Your task to perform on an android device: Open the stopwatch Image 0: 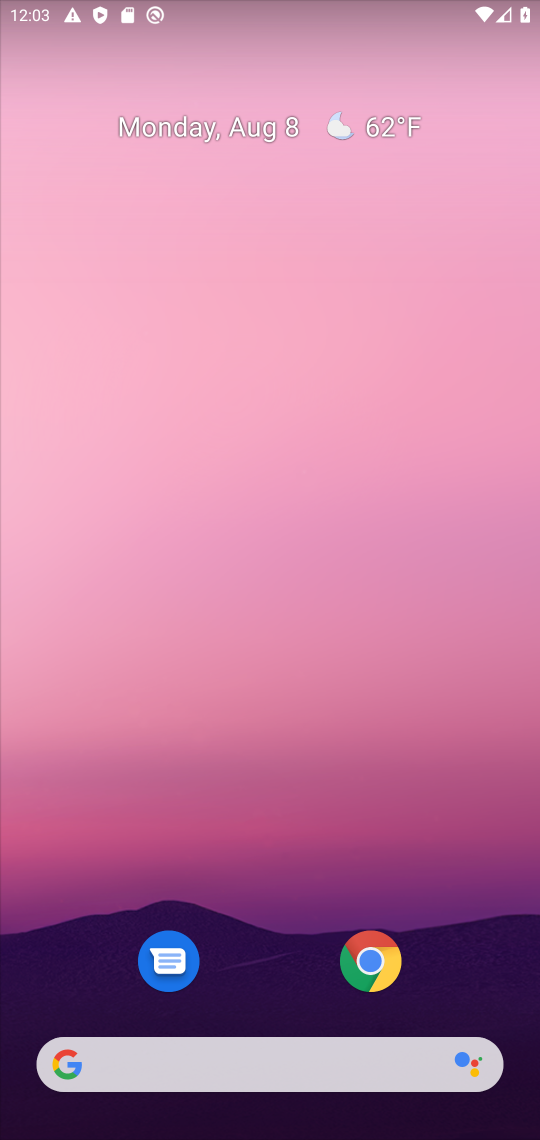
Step 0: drag from (222, 1062) to (273, 12)
Your task to perform on an android device: Open the stopwatch Image 1: 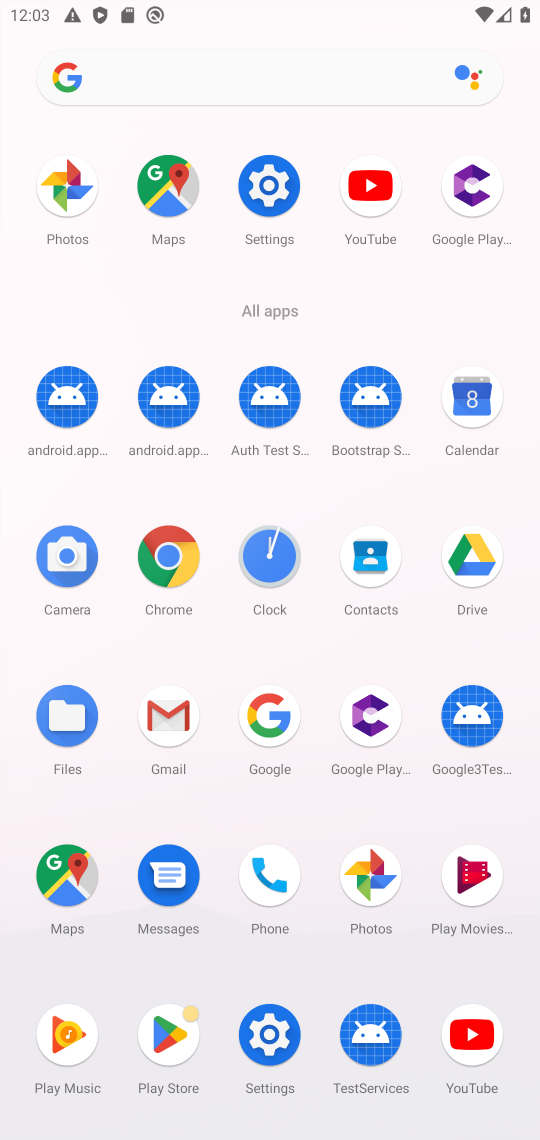
Step 1: click (270, 576)
Your task to perform on an android device: Open the stopwatch Image 2: 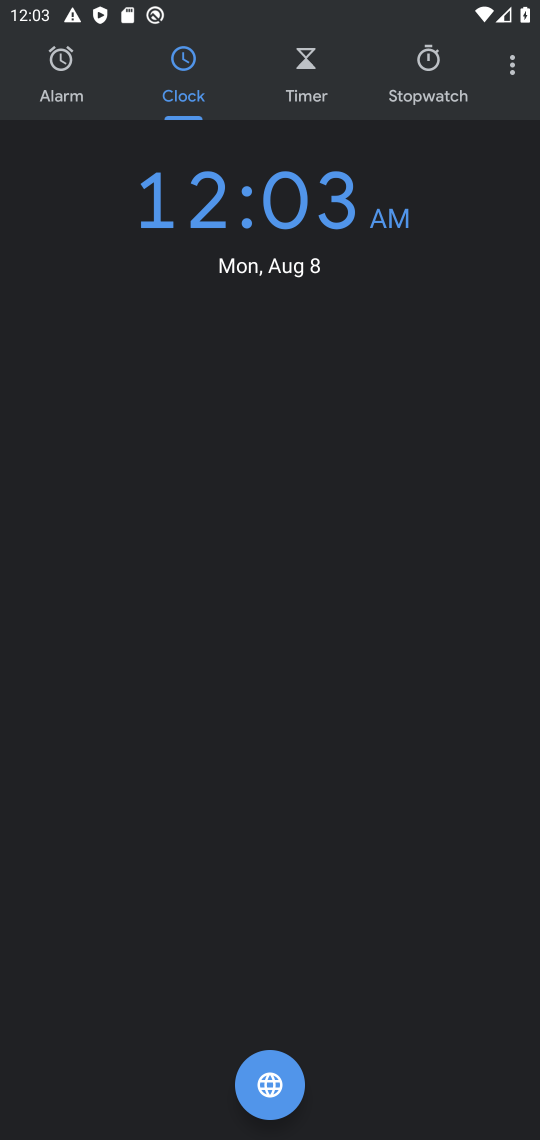
Step 2: click (410, 89)
Your task to perform on an android device: Open the stopwatch Image 3: 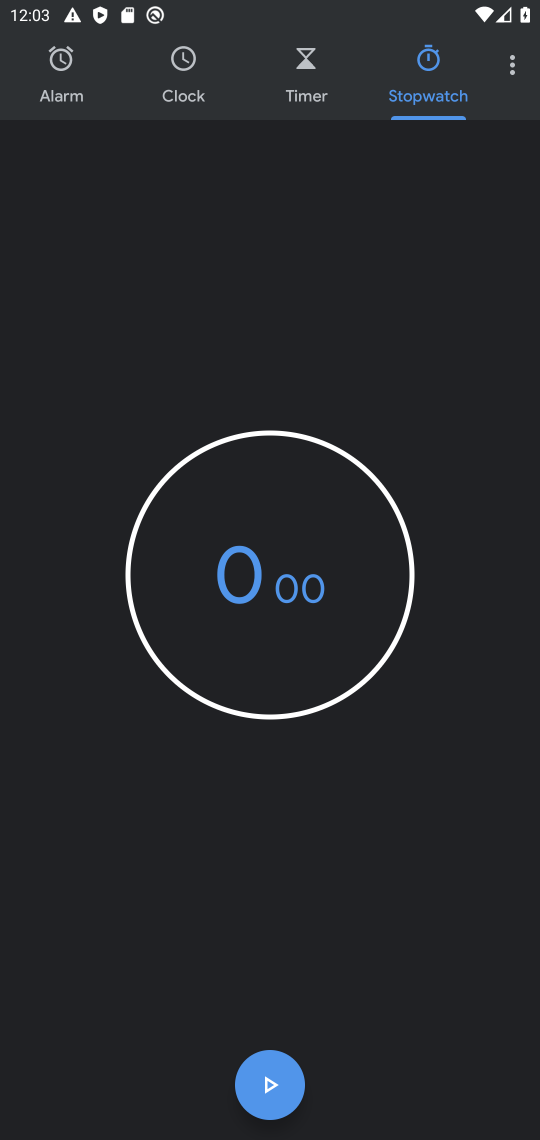
Step 3: click (269, 1097)
Your task to perform on an android device: Open the stopwatch Image 4: 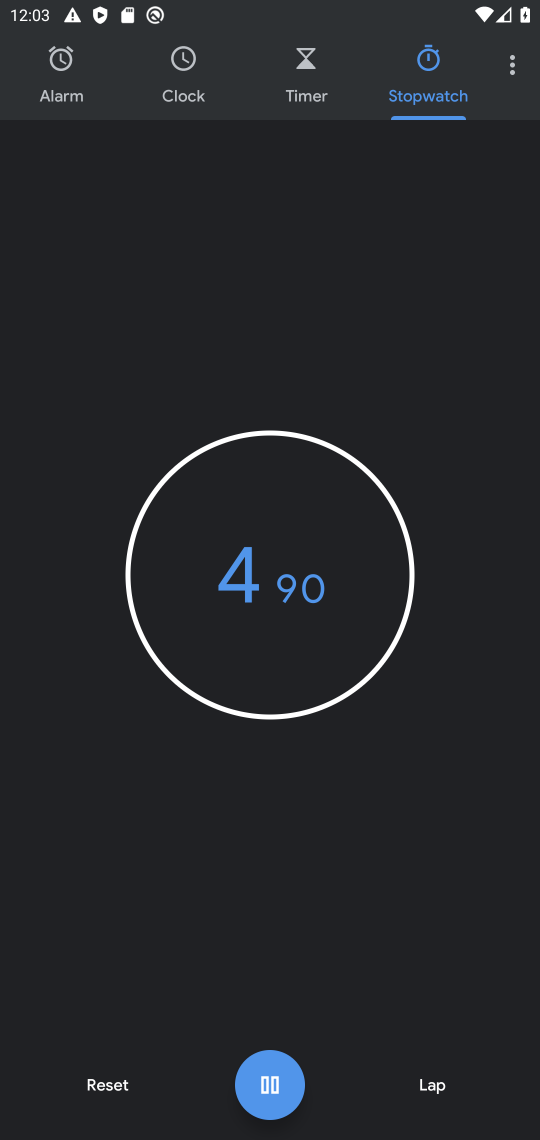
Step 4: task complete